Your task to perform on an android device: turn off location history Image 0: 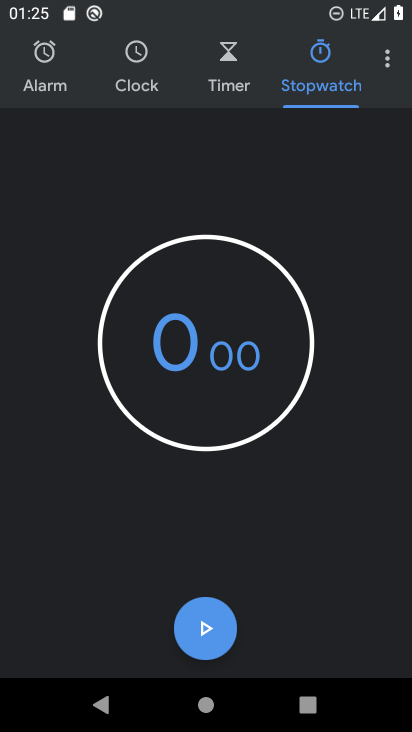
Step 0: press home button
Your task to perform on an android device: turn off location history Image 1: 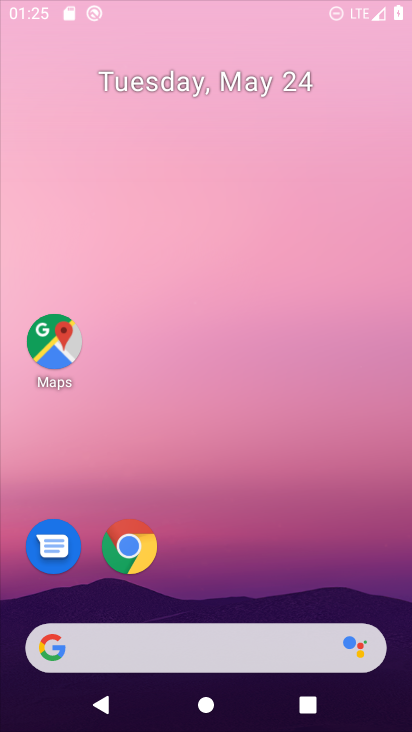
Step 1: drag from (230, 672) to (302, 2)
Your task to perform on an android device: turn off location history Image 2: 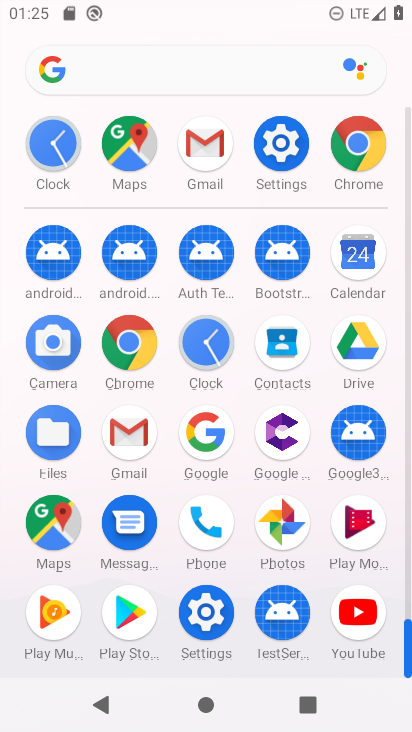
Step 2: click (274, 139)
Your task to perform on an android device: turn off location history Image 3: 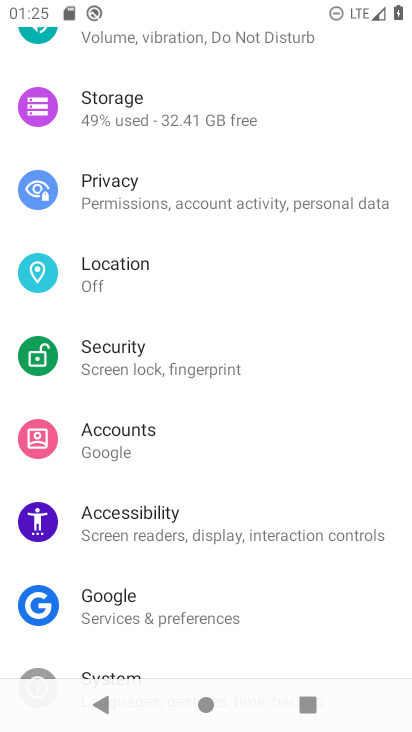
Step 3: click (154, 286)
Your task to perform on an android device: turn off location history Image 4: 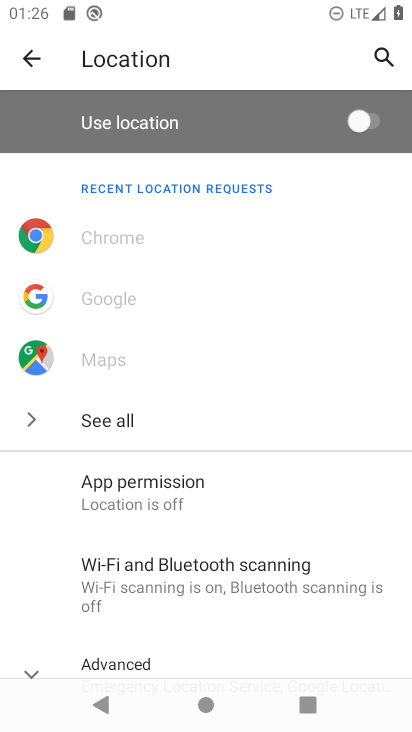
Step 4: drag from (236, 624) to (296, 149)
Your task to perform on an android device: turn off location history Image 5: 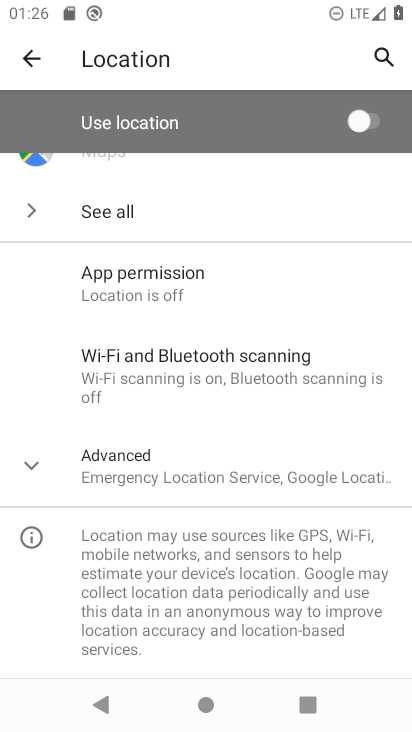
Step 5: click (215, 473)
Your task to perform on an android device: turn off location history Image 6: 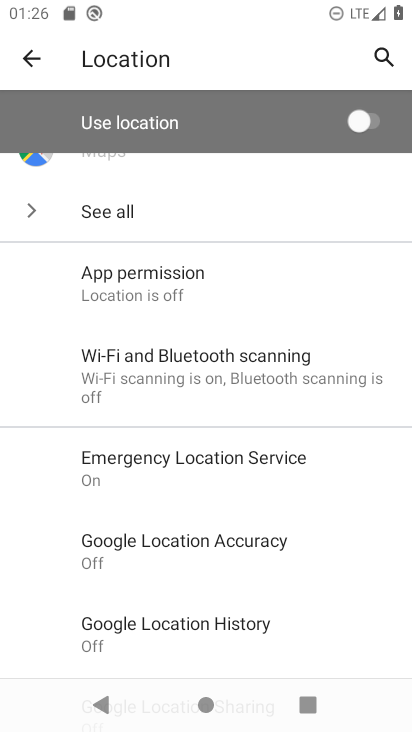
Step 6: click (226, 634)
Your task to perform on an android device: turn off location history Image 7: 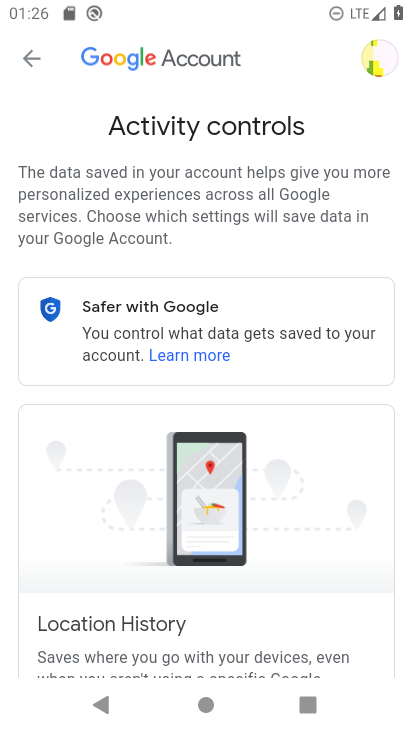
Step 7: drag from (266, 643) to (281, 68)
Your task to perform on an android device: turn off location history Image 8: 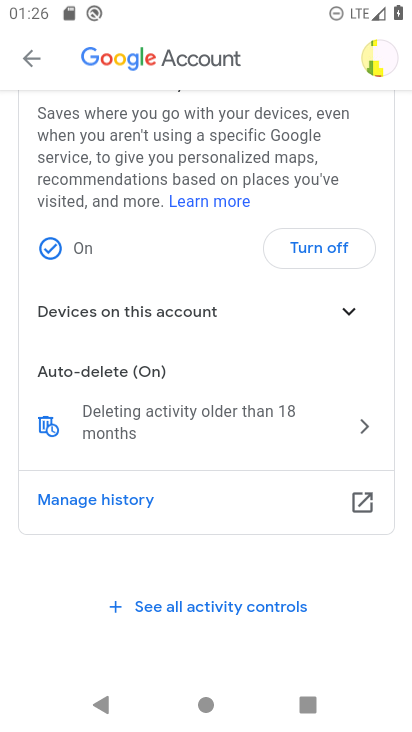
Step 8: click (344, 251)
Your task to perform on an android device: turn off location history Image 9: 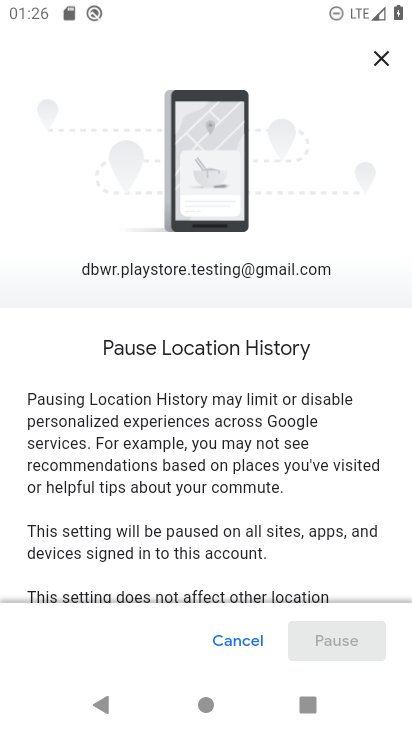
Step 9: drag from (266, 580) to (314, 0)
Your task to perform on an android device: turn off location history Image 10: 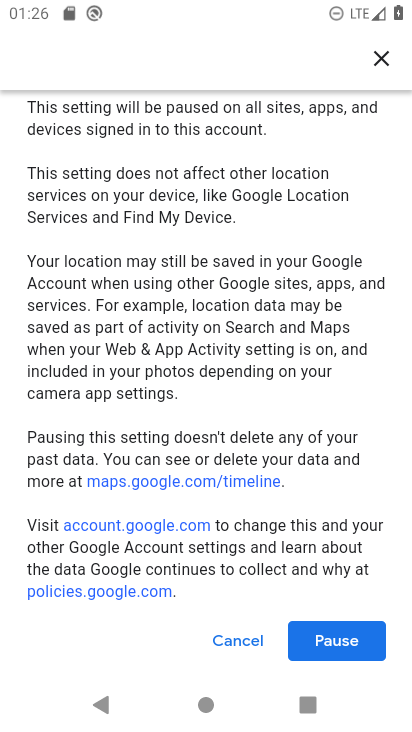
Step 10: click (330, 637)
Your task to perform on an android device: turn off location history Image 11: 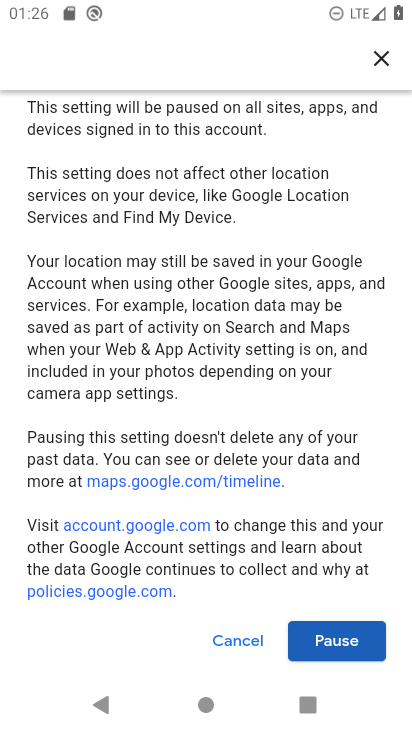
Step 11: click (330, 637)
Your task to perform on an android device: turn off location history Image 12: 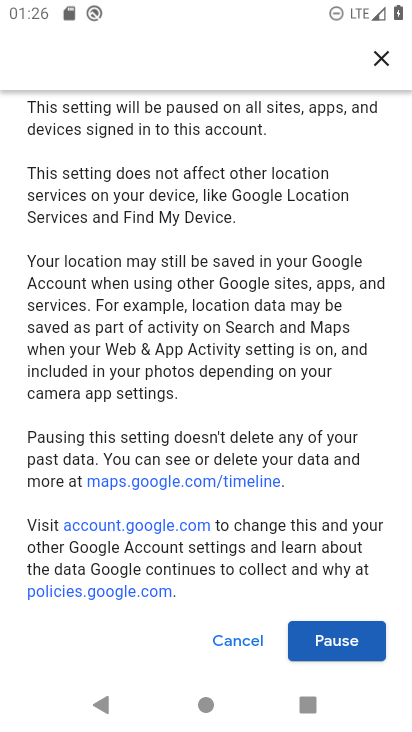
Step 12: click (330, 637)
Your task to perform on an android device: turn off location history Image 13: 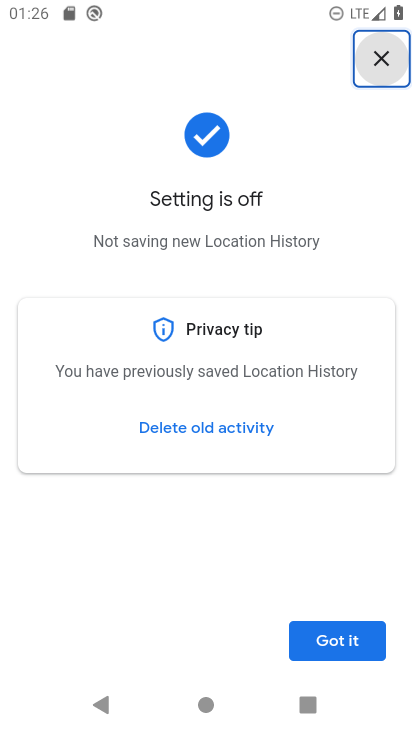
Step 13: task complete